Your task to perform on an android device: turn on showing notifications on the lock screen Image 0: 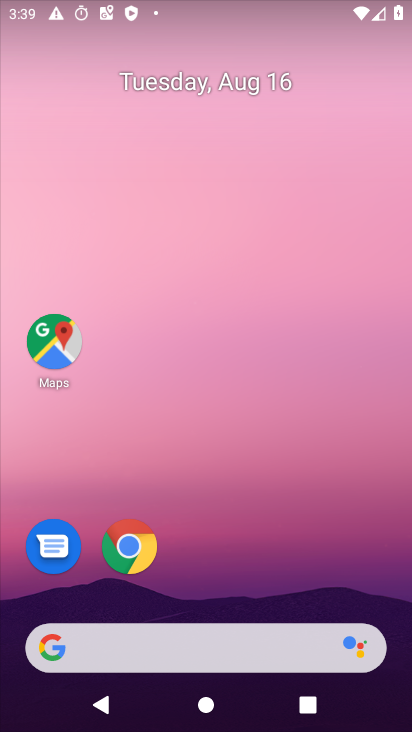
Step 0: press home button
Your task to perform on an android device: turn on showing notifications on the lock screen Image 1: 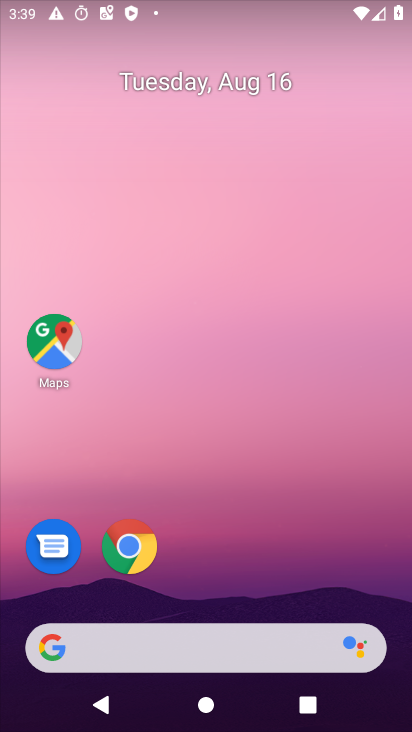
Step 1: drag from (360, 516) to (394, 89)
Your task to perform on an android device: turn on showing notifications on the lock screen Image 2: 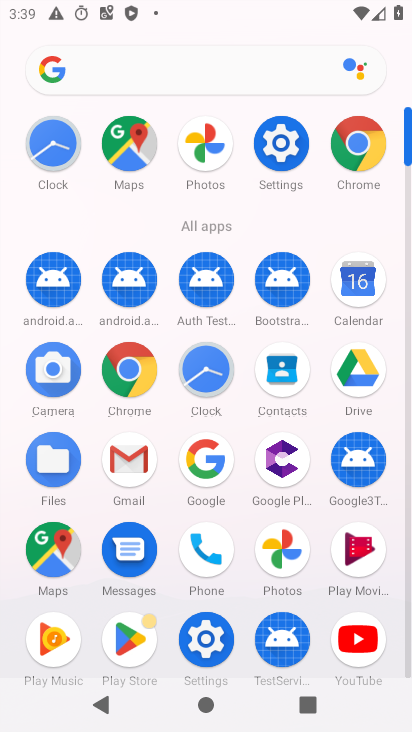
Step 2: click (280, 142)
Your task to perform on an android device: turn on showing notifications on the lock screen Image 3: 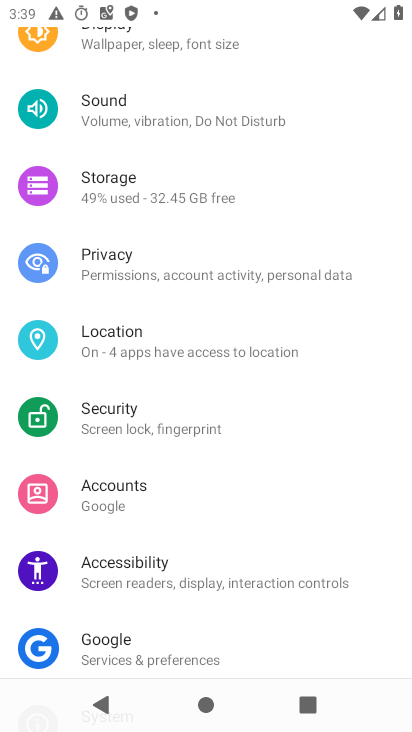
Step 3: drag from (364, 222) to (378, 340)
Your task to perform on an android device: turn on showing notifications on the lock screen Image 4: 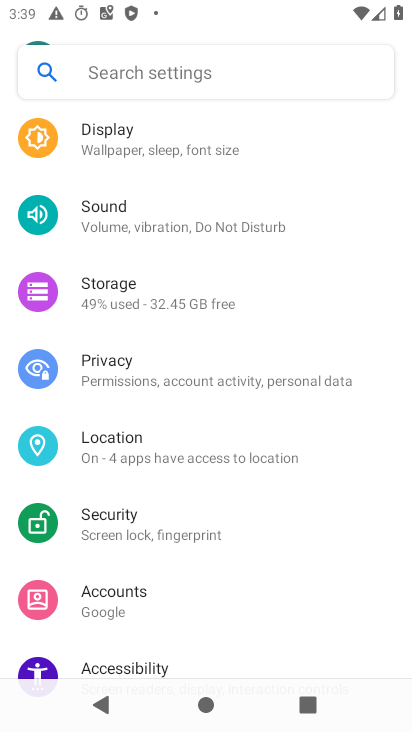
Step 4: drag from (364, 150) to (378, 311)
Your task to perform on an android device: turn on showing notifications on the lock screen Image 5: 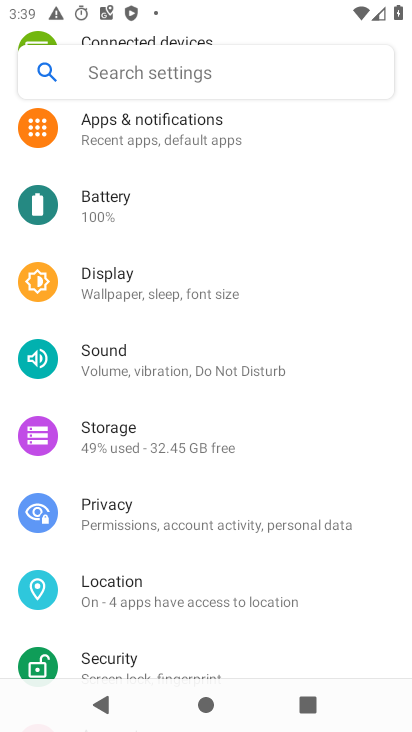
Step 5: drag from (348, 149) to (362, 318)
Your task to perform on an android device: turn on showing notifications on the lock screen Image 6: 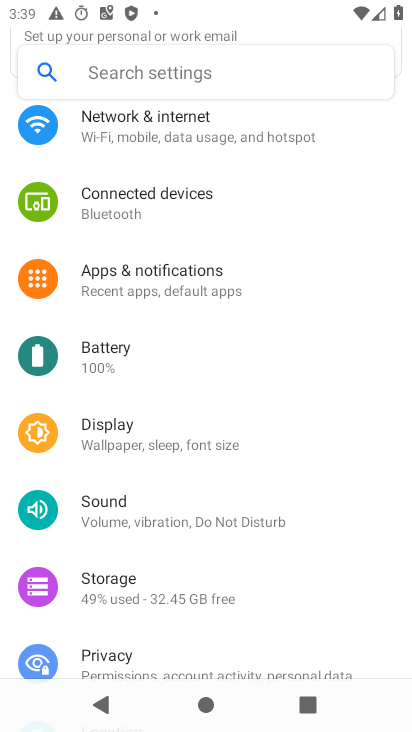
Step 6: drag from (364, 130) to (378, 393)
Your task to perform on an android device: turn on showing notifications on the lock screen Image 7: 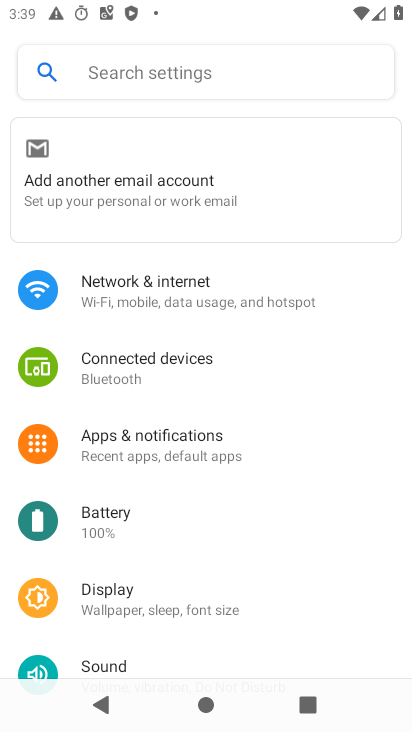
Step 7: click (224, 440)
Your task to perform on an android device: turn on showing notifications on the lock screen Image 8: 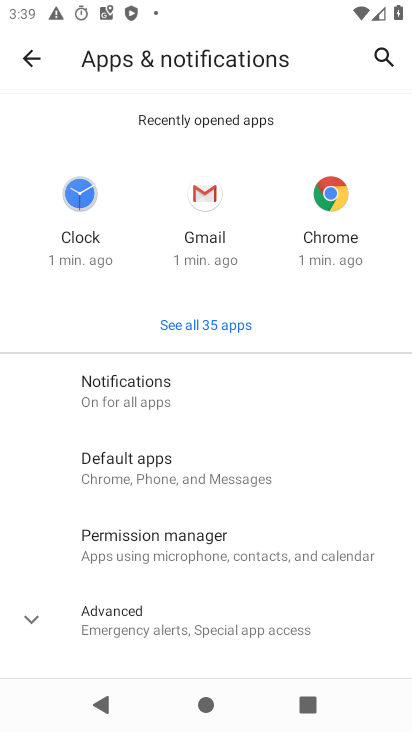
Step 8: click (156, 406)
Your task to perform on an android device: turn on showing notifications on the lock screen Image 9: 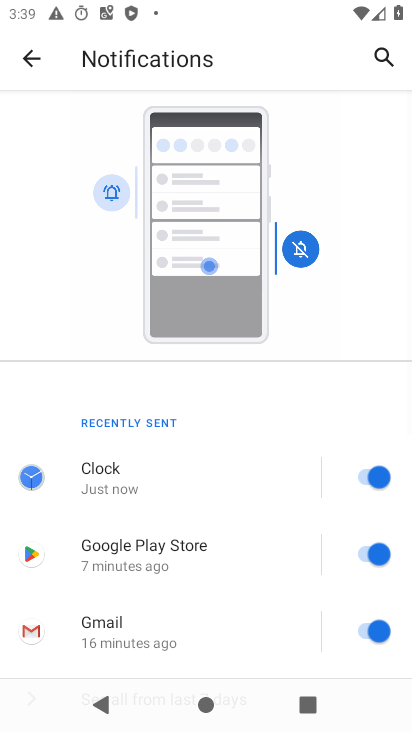
Step 9: drag from (273, 542) to (265, 382)
Your task to perform on an android device: turn on showing notifications on the lock screen Image 10: 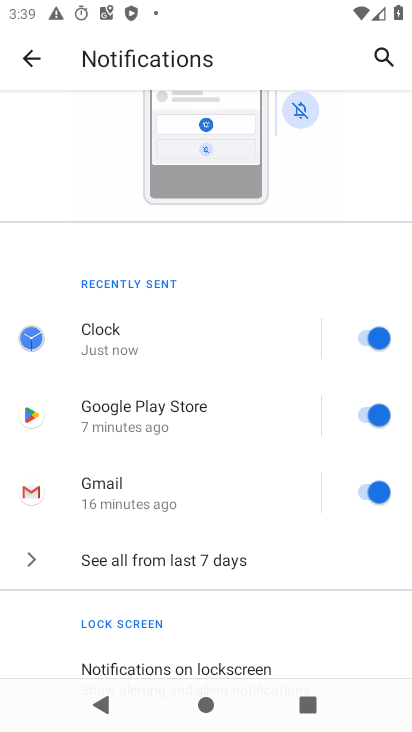
Step 10: drag from (251, 540) to (249, 359)
Your task to perform on an android device: turn on showing notifications on the lock screen Image 11: 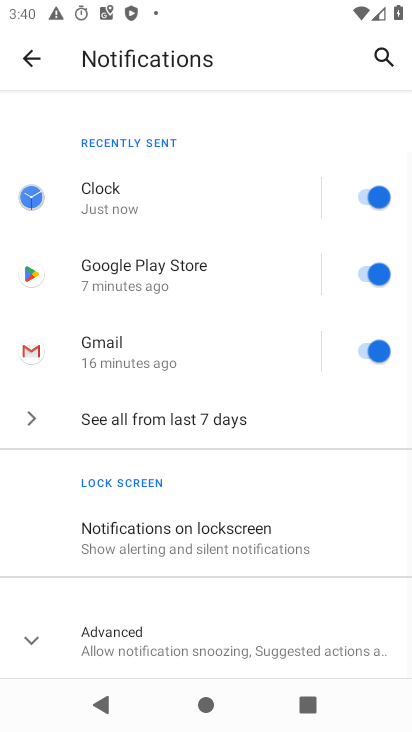
Step 11: drag from (249, 584) to (248, 404)
Your task to perform on an android device: turn on showing notifications on the lock screen Image 12: 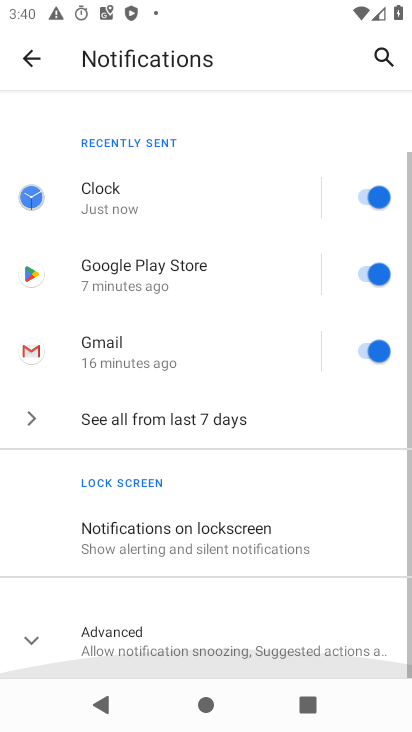
Step 12: click (246, 544)
Your task to perform on an android device: turn on showing notifications on the lock screen Image 13: 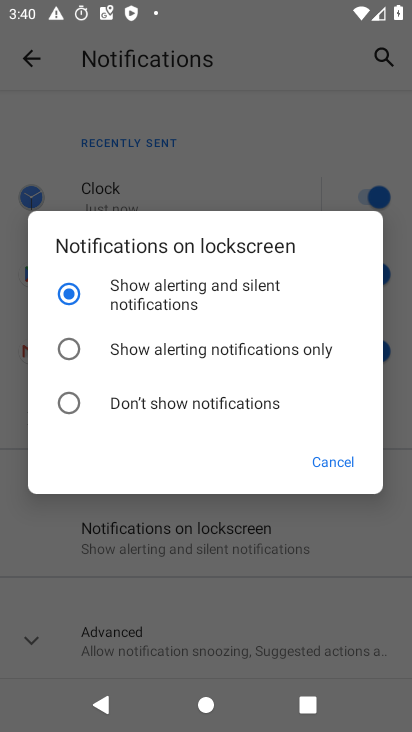
Step 13: task complete